Your task to perform on an android device: Go to Reddit.com Image 0: 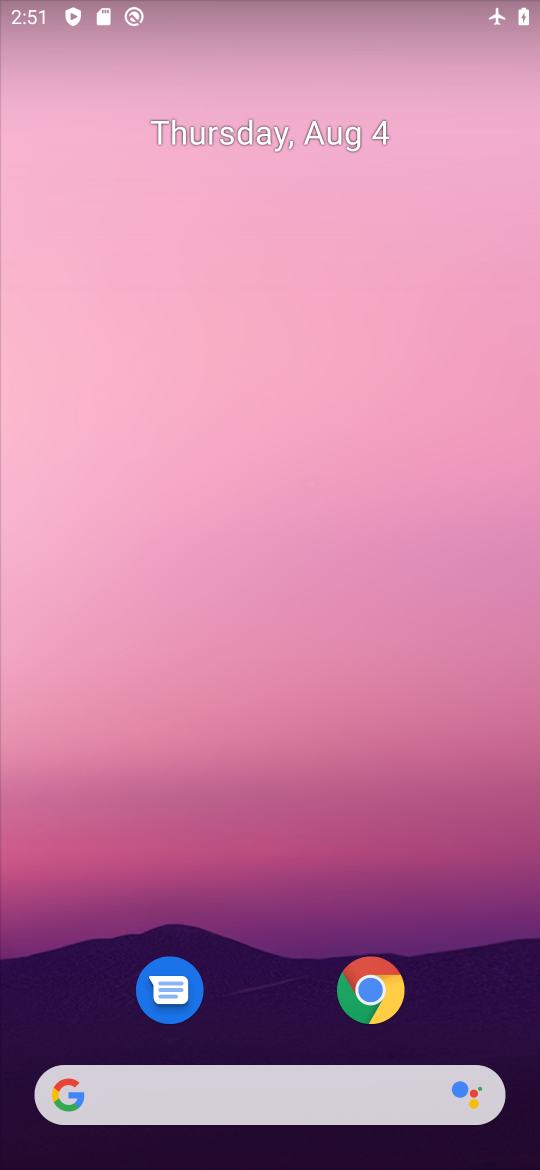
Step 0: drag from (290, 1049) to (394, 33)
Your task to perform on an android device: Go to Reddit.com Image 1: 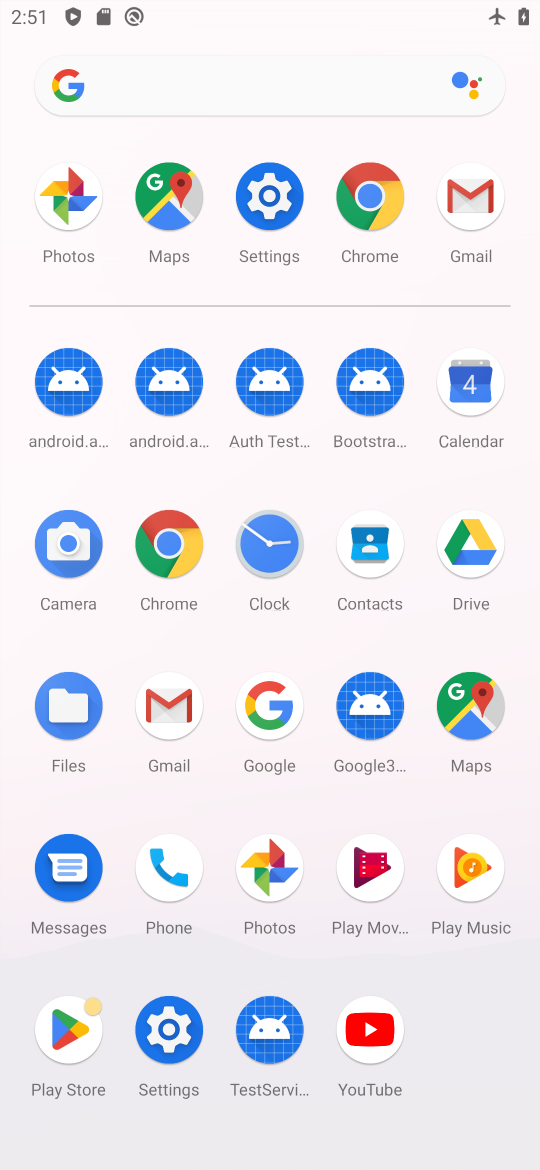
Step 1: click (350, 220)
Your task to perform on an android device: Go to Reddit.com Image 2: 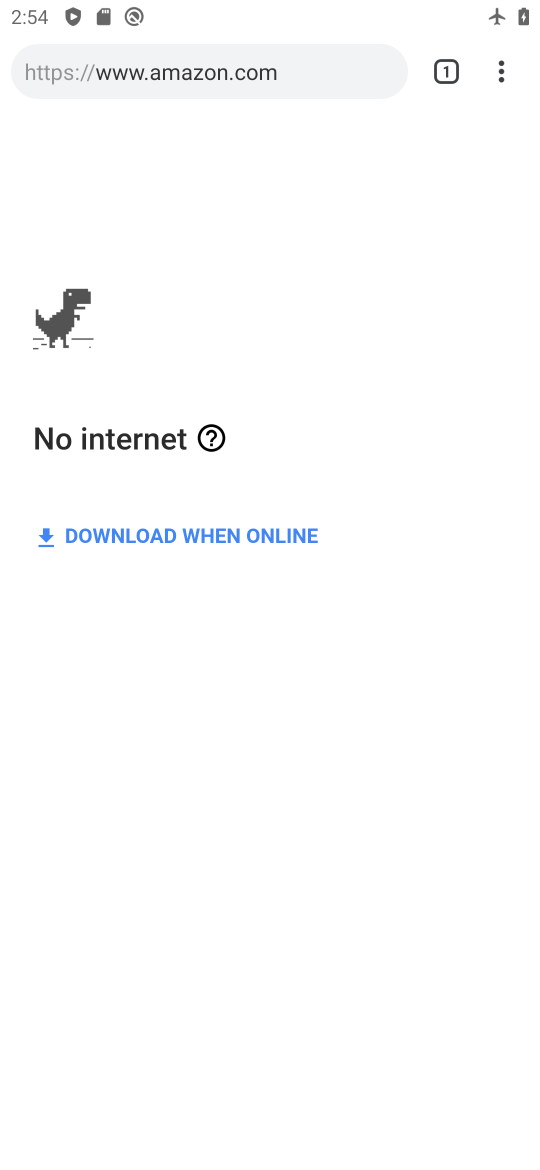
Step 2: task complete